Your task to perform on an android device: Open CNN.com Image 0: 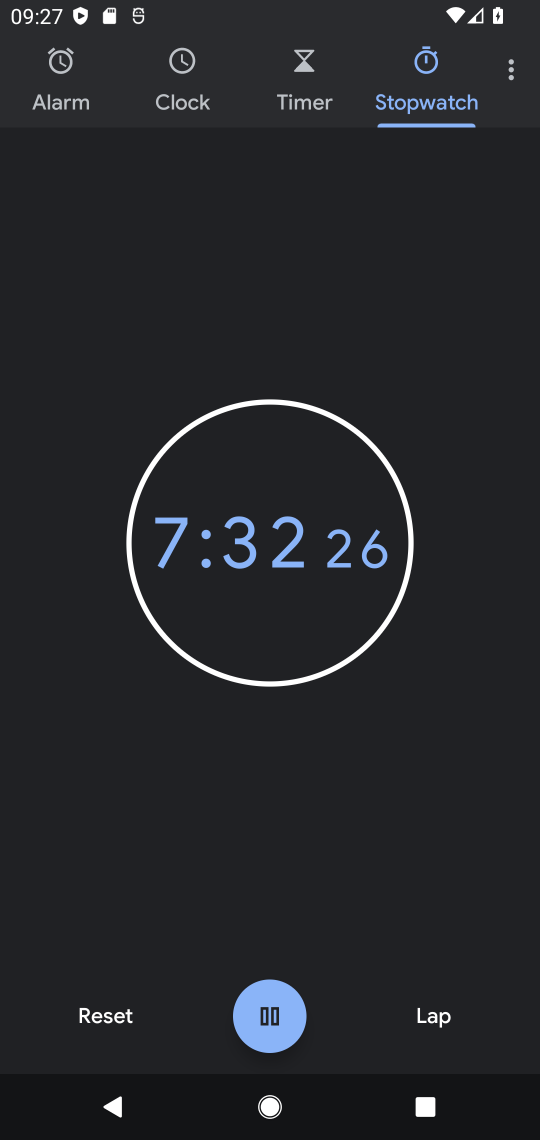
Step 0: press home button
Your task to perform on an android device: Open CNN.com Image 1: 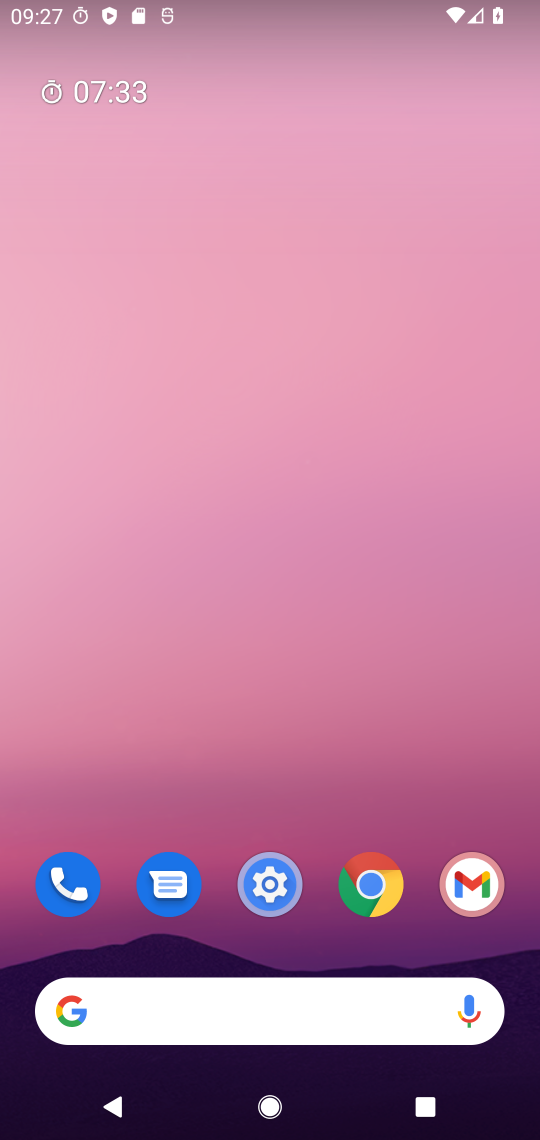
Step 1: click (355, 888)
Your task to perform on an android device: Open CNN.com Image 2: 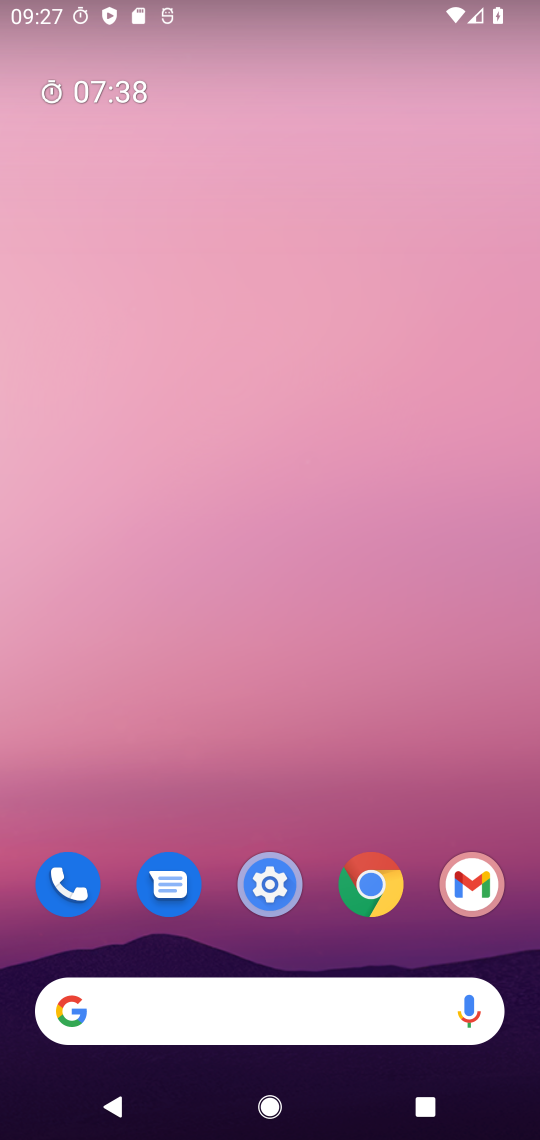
Step 2: click (335, 877)
Your task to perform on an android device: Open CNN.com Image 3: 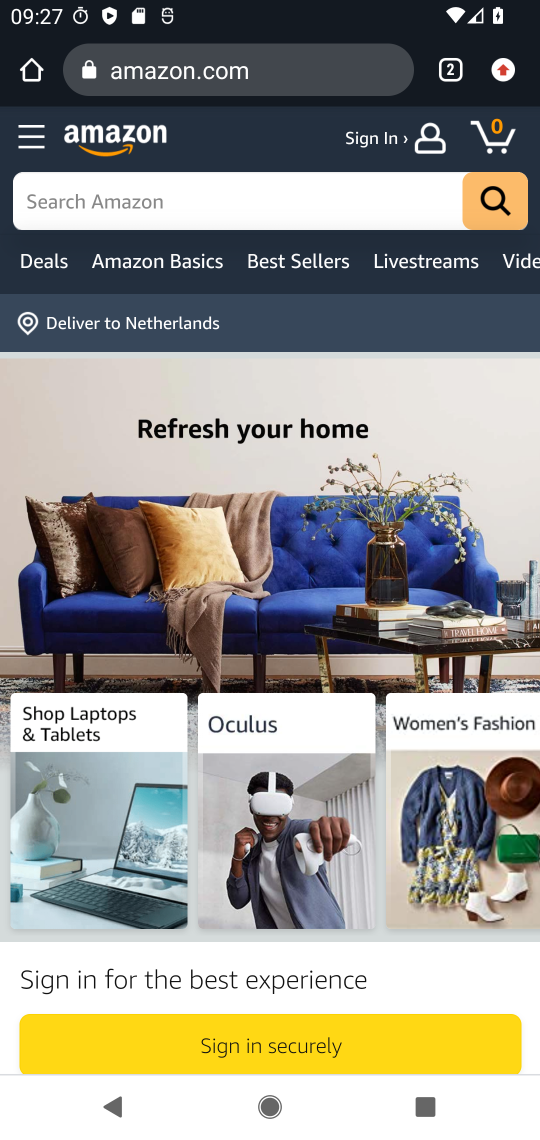
Step 3: click (455, 53)
Your task to perform on an android device: Open CNN.com Image 4: 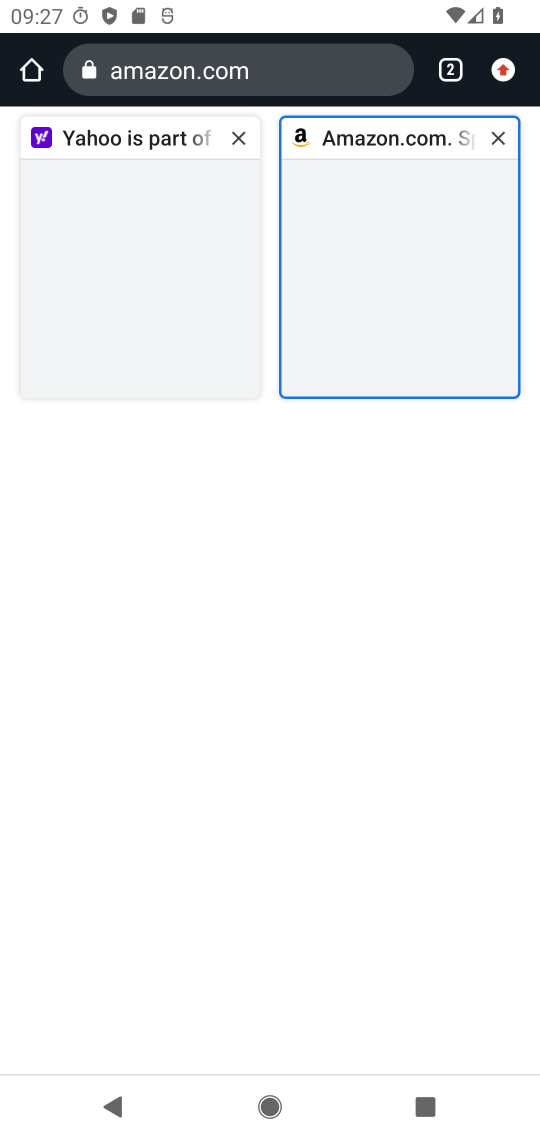
Step 4: click (453, 77)
Your task to perform on an android device: Open CNN.com Image 5: 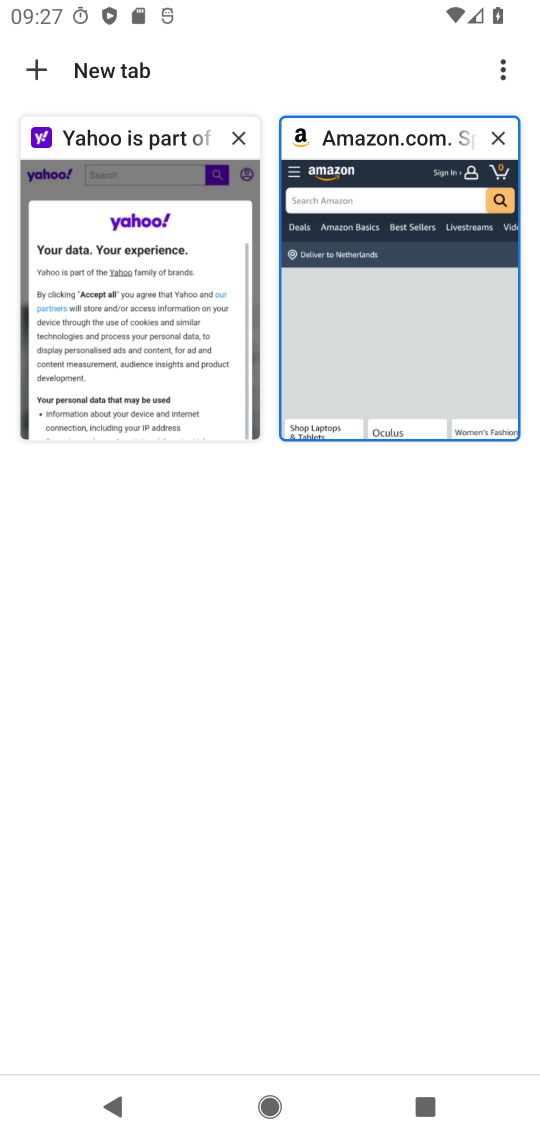
Step 5: click (34, 64)
Your task to perform on an android device: Open CNN.com Image 6: 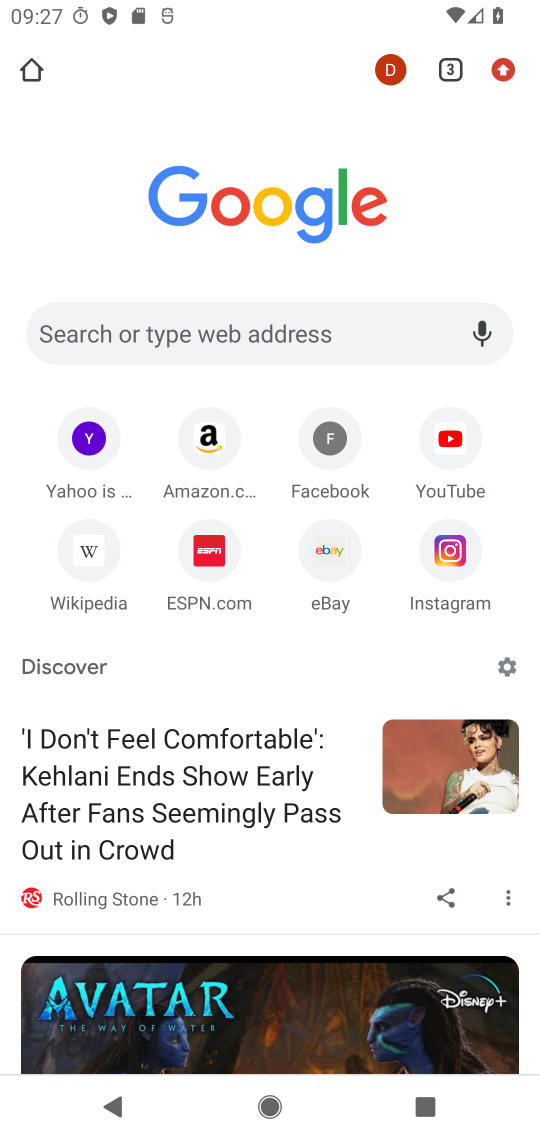
Step 6: click (314, 343)
Your task to perform on an android device: Open CNN.com Image 7: 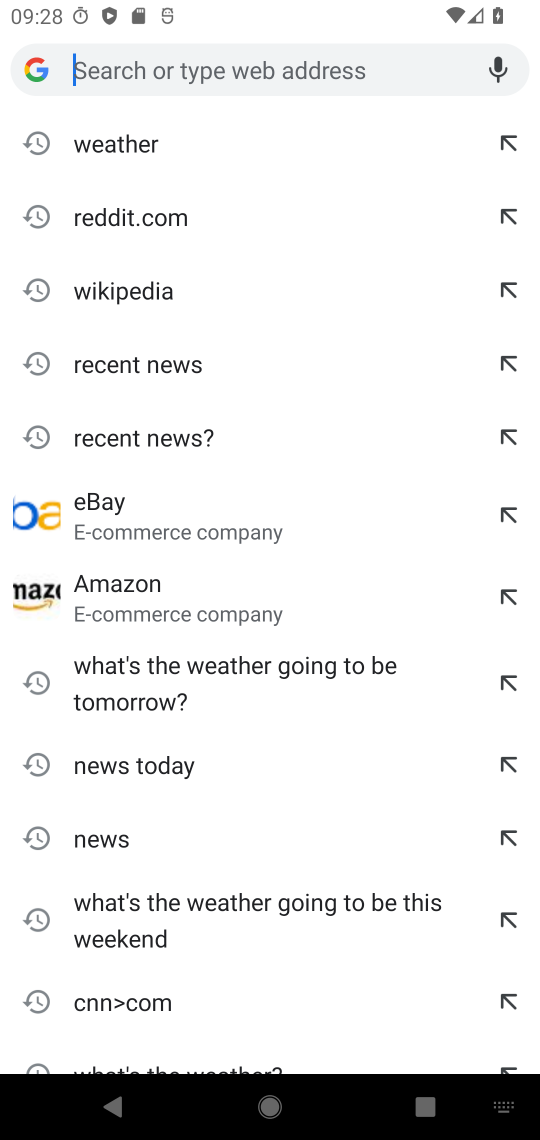
Step 7: type "CNN.com"
Your task to perform on an android device: Open CNN.com Image 8: 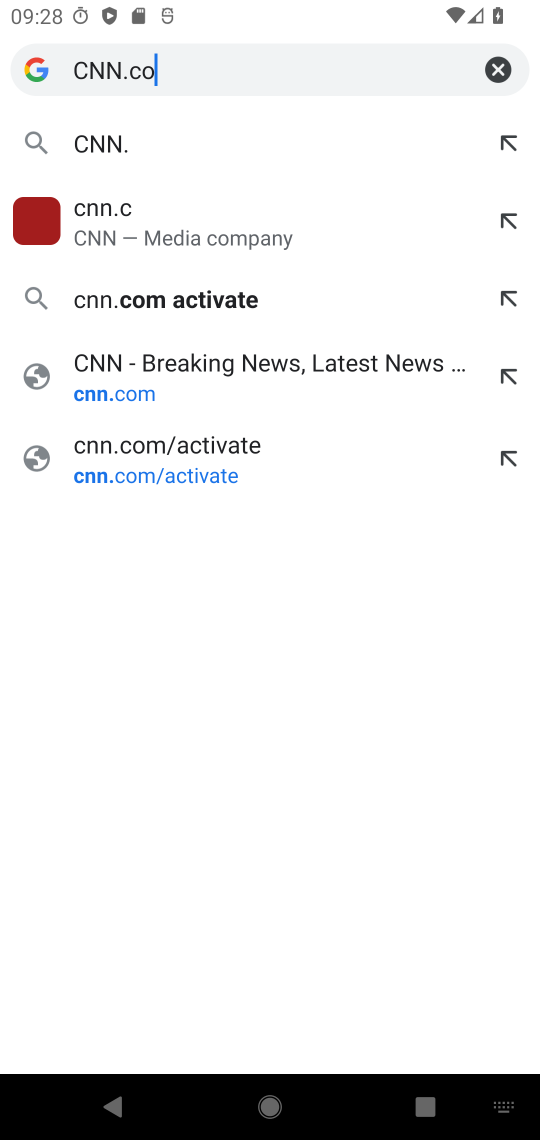
Step 8: type ""
Your task to perform on an android device: Open CNN.com Image 9: 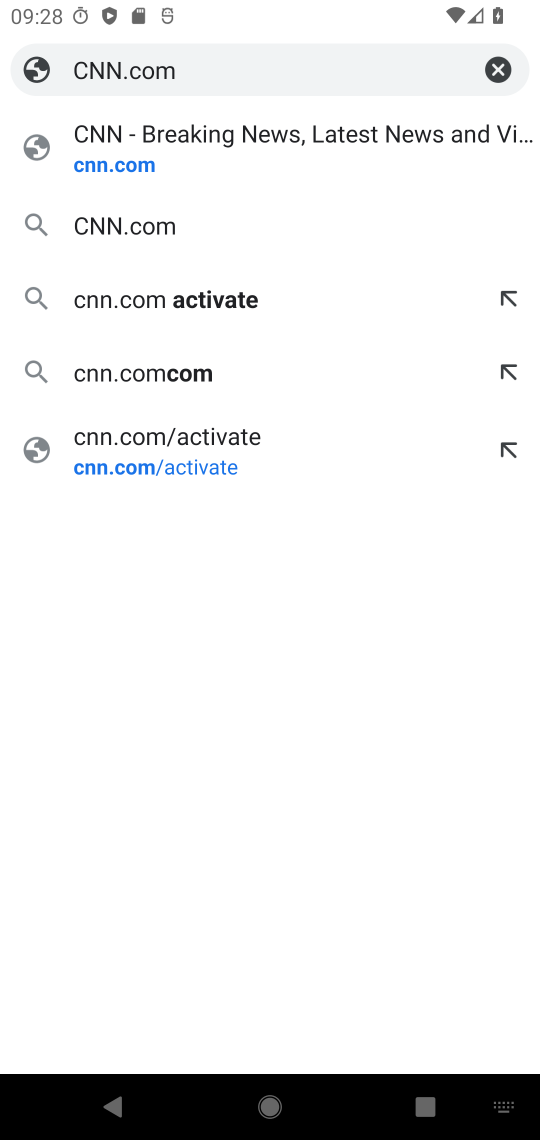
Step 9: click (207, 151)
Your task to perform on an android device: Open CNN.com Image 10: 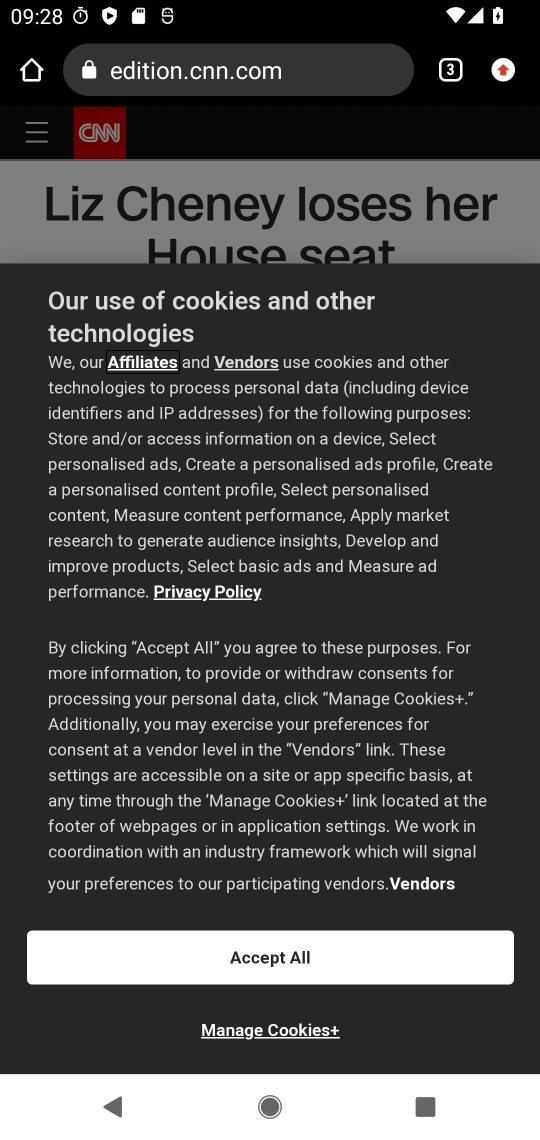
Step 10: task complete